Your task to perform on an android device: Search for Mexican restaurants on Maps Image 0: 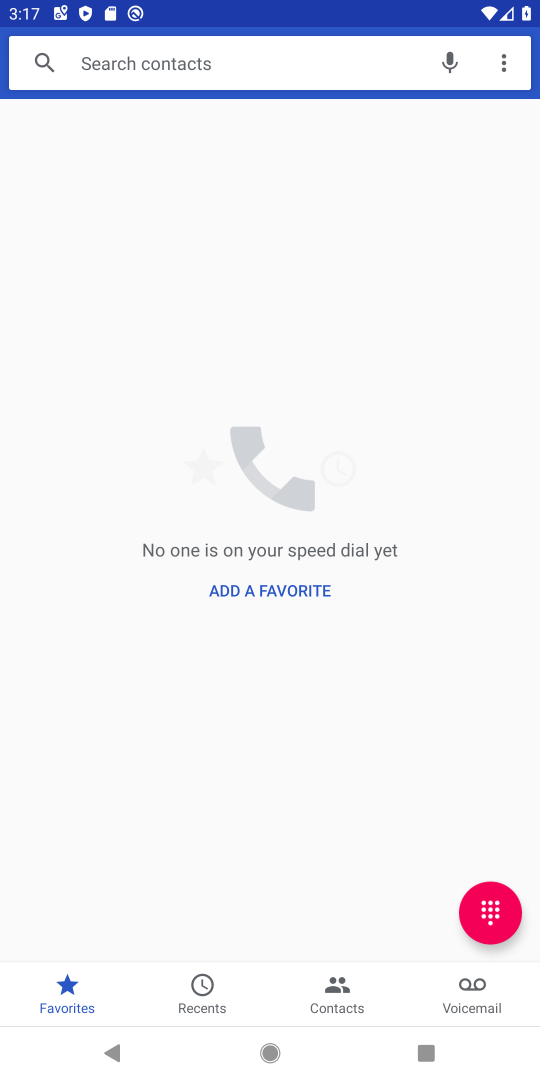
Step 0: press home button
Your task to perform on an android device: Search for Mexican restaurants on Maps Image 1: 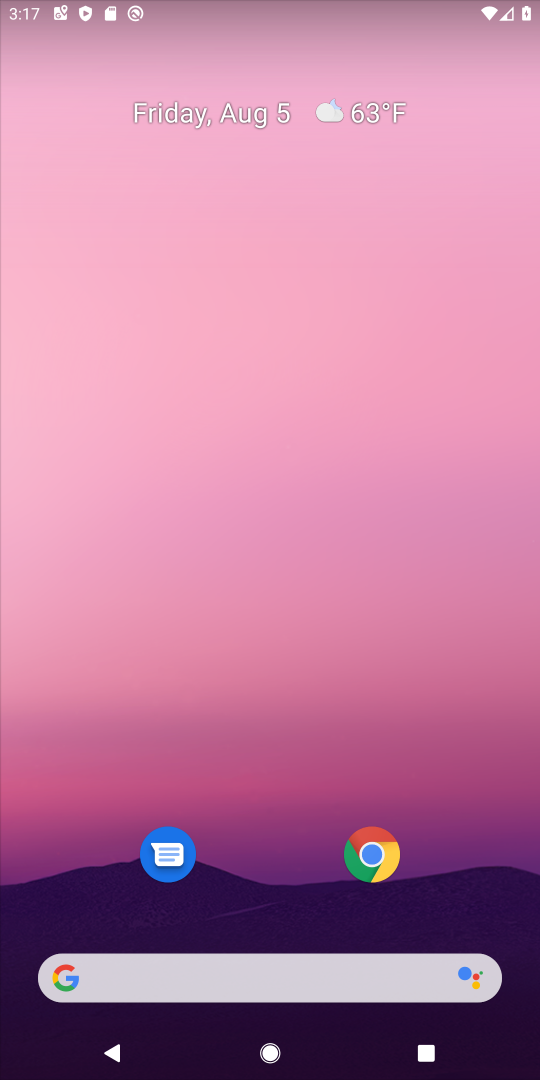
Step 1: drag from (74, 1035) to (240, 540)
Your task to perform on an android device: Search for Mexican restaurants on Maps Image 2: 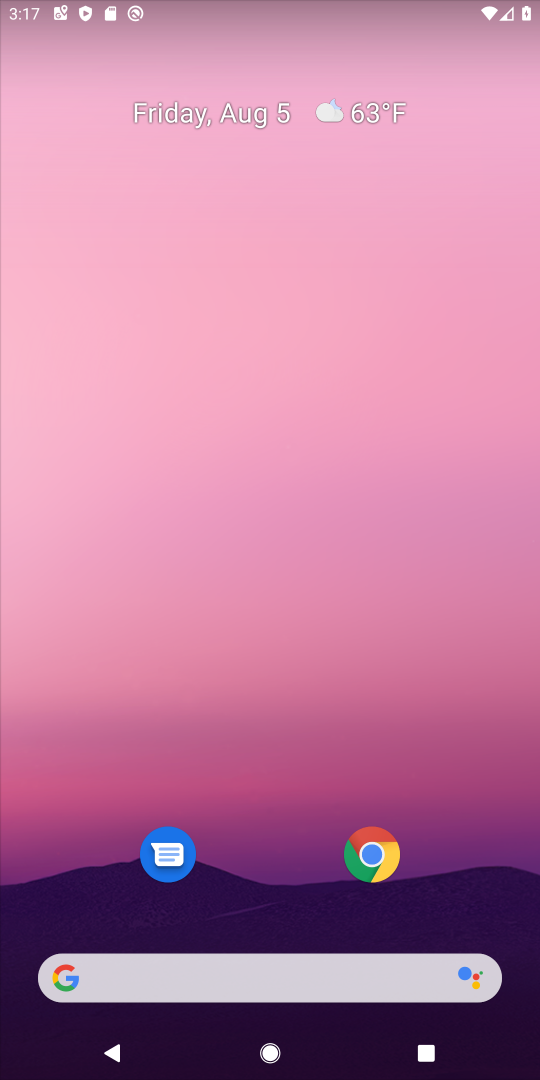
Step 2: drag from (87, 1006) to (371, 454)
Your task to perform on an android device: Search for Mexican restaurants on Maps Image 3: 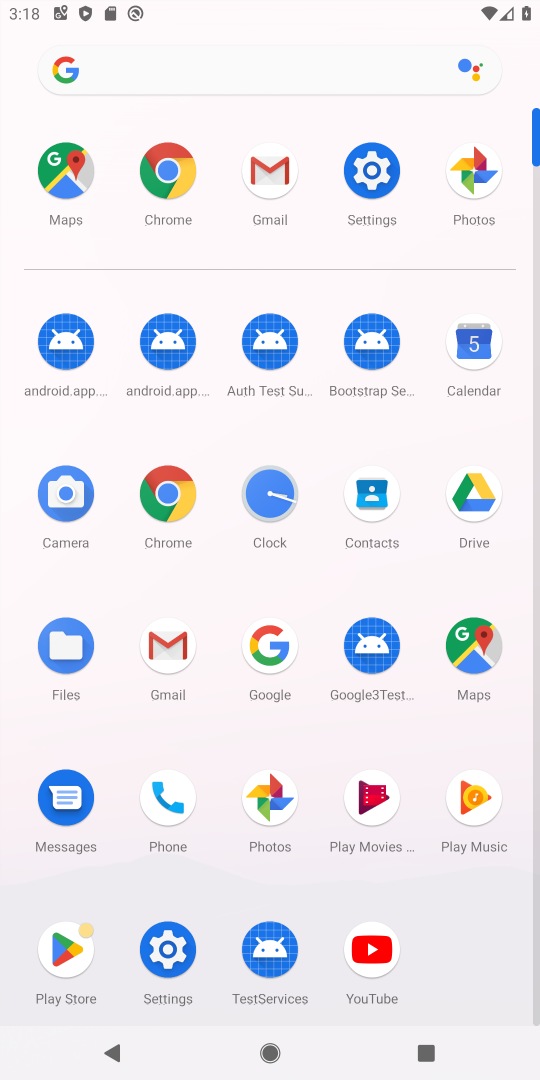
Step 3: click (463, 617)
Your task to perform on an android device: Search for Mexican restaurants on Maps Image 4: 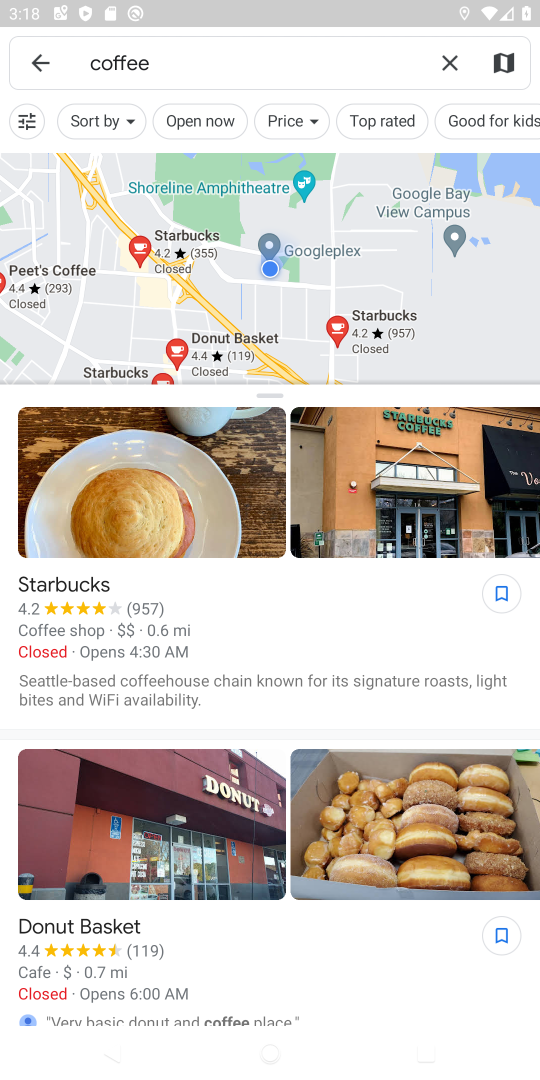
Step 4: click (36, 43)
Your task to perform on an android device: Search for Mexican restaurants on Maps Image 5: 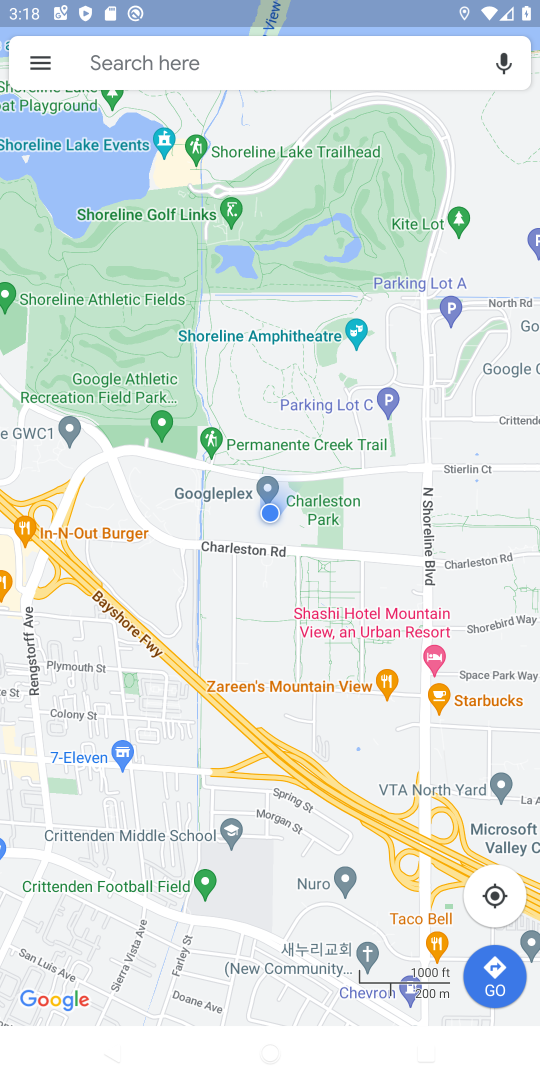
Step 5: click (124, 58)
Your task to perform on an android device: Search for Mexican restaurants on Maps Image 6: 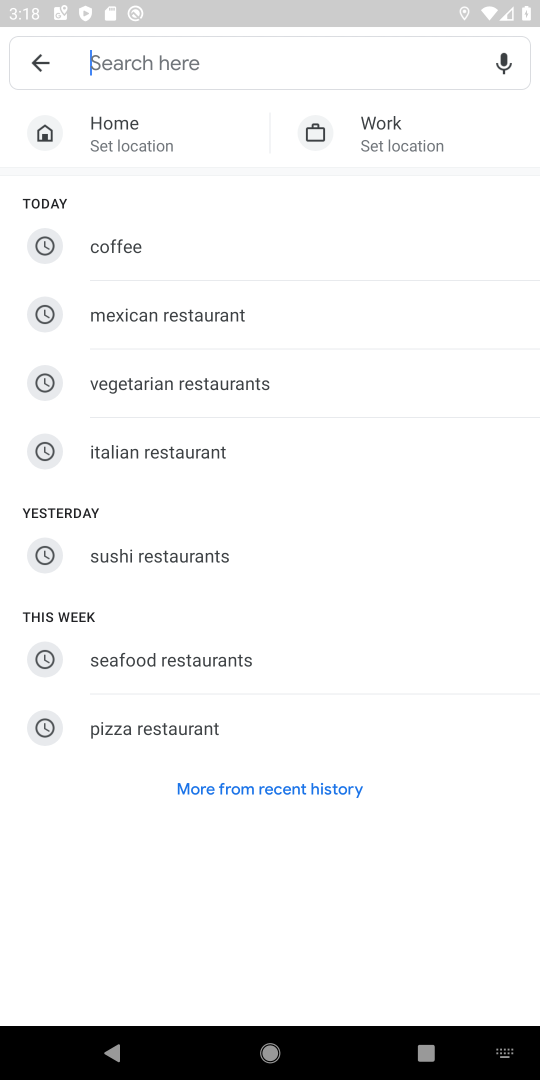
Step 6: click (183, 304)
Your task to perform on an android device: Search for Mexican restaurants on Maps Image 7: 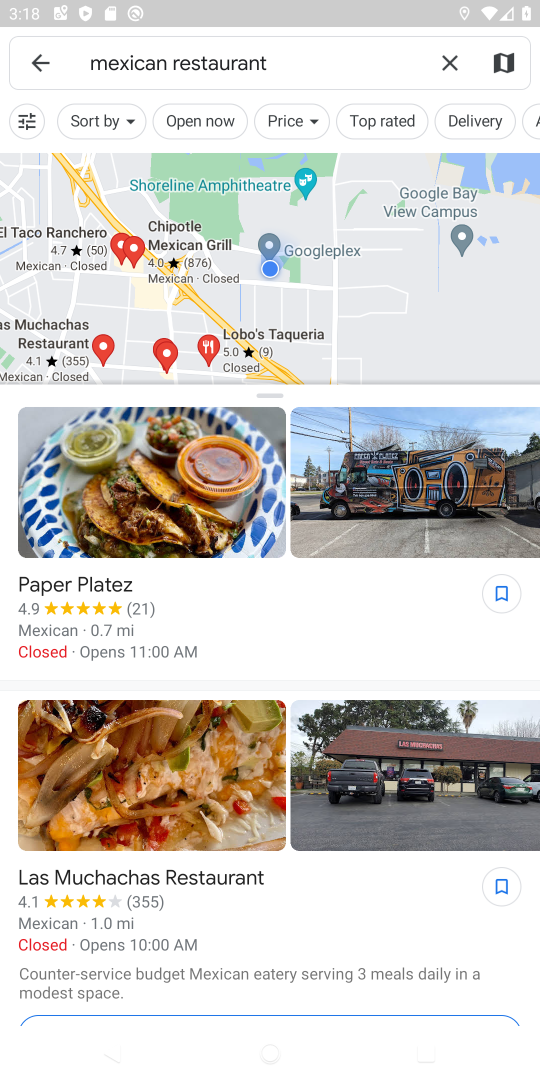
Step 7: task complete